Your task to perform on an android device: Open the stopwatch Image 0: 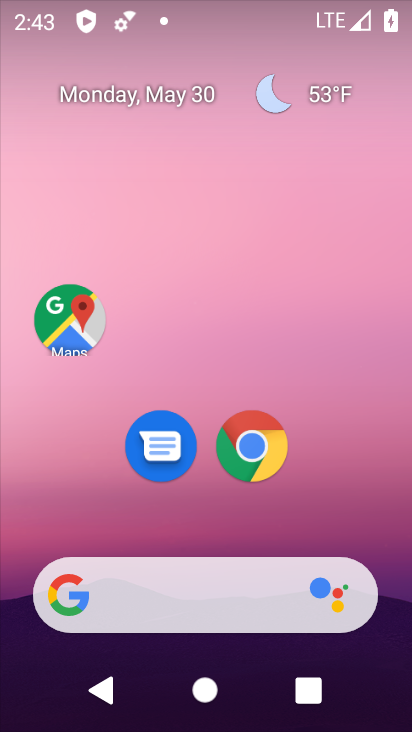
Step 0: drag from (331, 531) to (244, 95)
Your task to perform on an android device: Open the stopwatch Image 1: 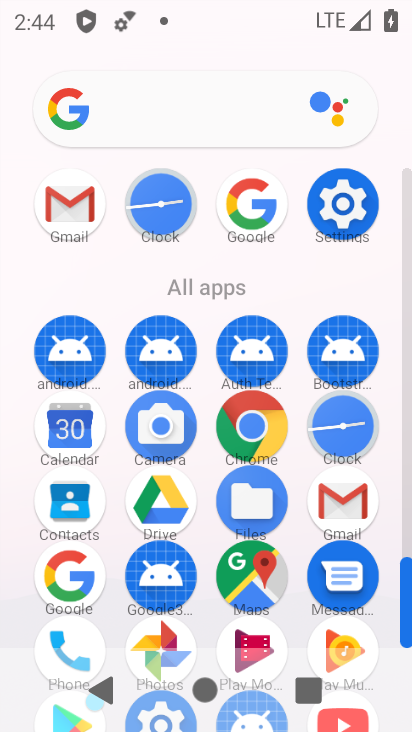
Step 1: click (162, 205)
Your task to perform on an android device: Open the stopwatch Image 2: 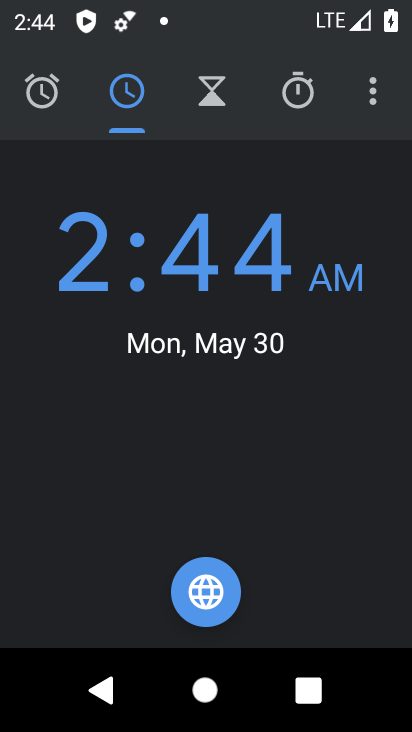
Step 2: click (305, 84)
Your task to perform on an android device: Open the stopwatch Image 3: 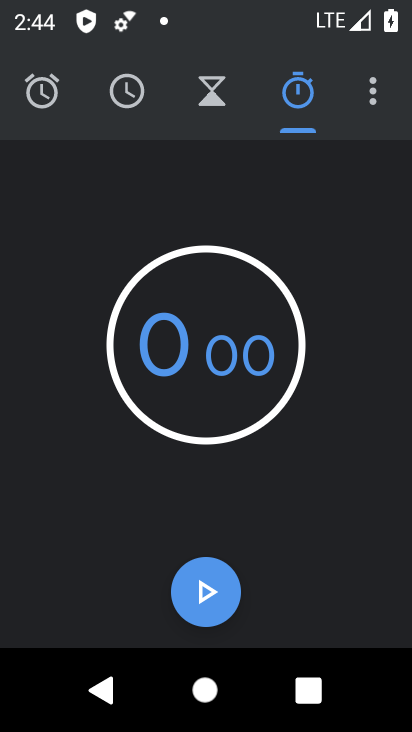
Step 3: task complete